Your task to perform on an android device: Go to network settings Image 0: 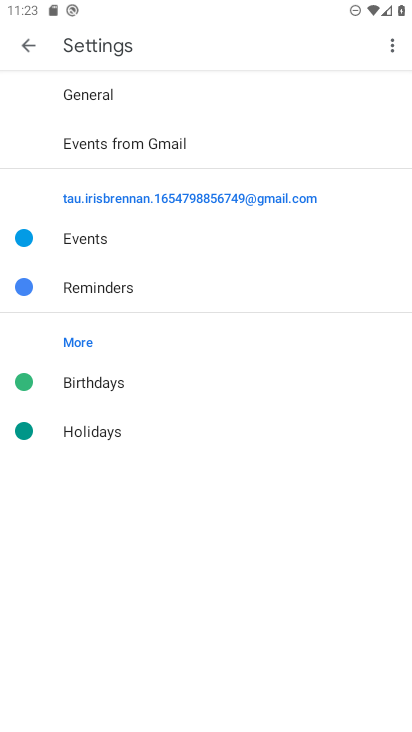
Step 0: press home button
Your task to perform on an android device: Go to network settings Image 1: 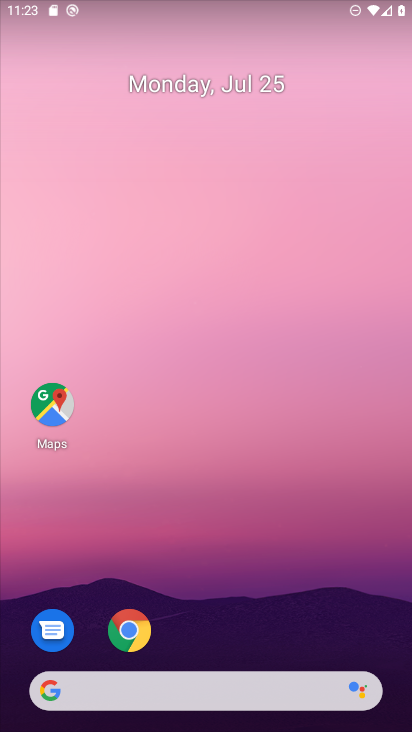
Step 1: drag from (205, 650) to (193, 11)
Your task to perform on an android device: Go to network settings Image 2: 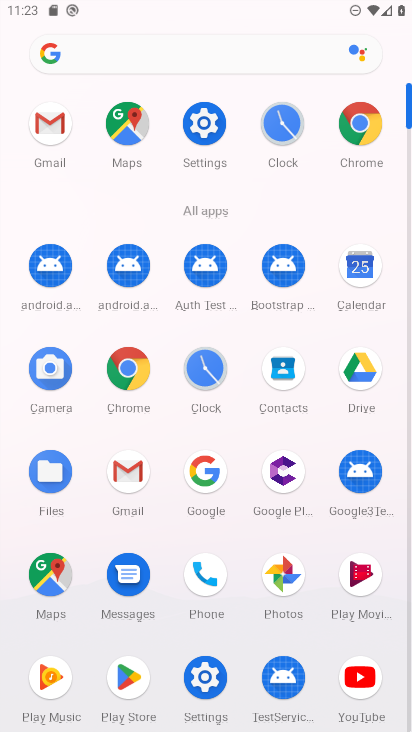
Step 2: click (196, 127)
Your task to perform on an android device: Go to network settings Image 3: 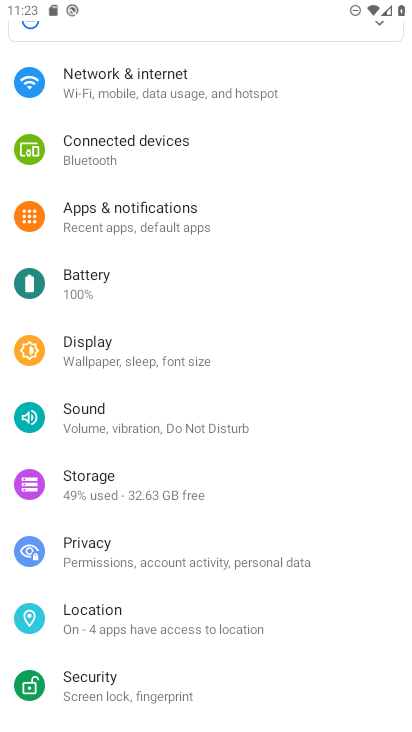
Step 3: click (111, 87)
Your task to perform on an android device: Go to network settings Image 4: 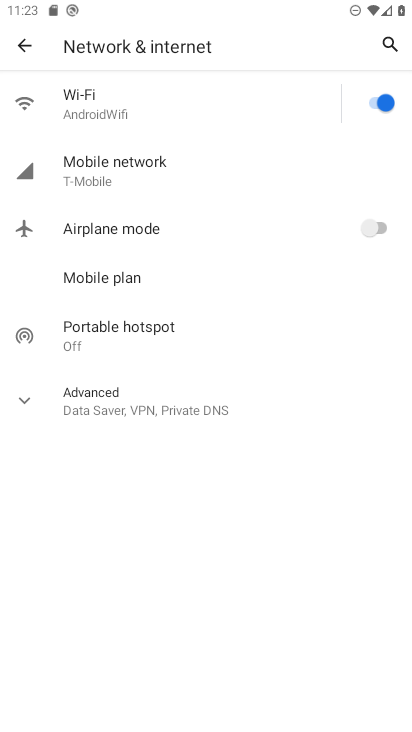
Step 4: click (91, 173)
Your task to perform on an android device: Go to network settings Image 5: 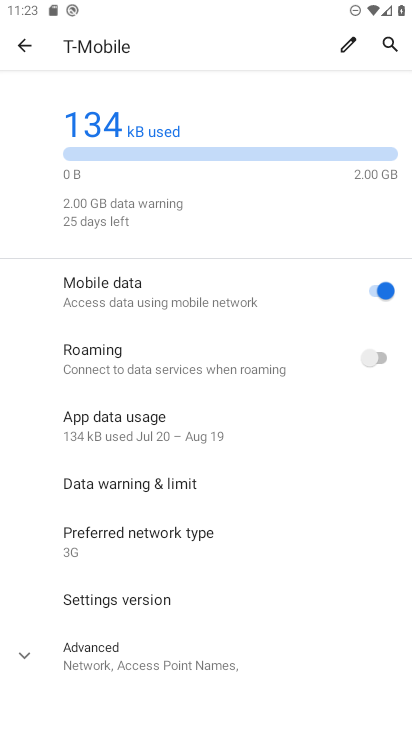
Step 5: drag from (220, 578) to (218, 283)
Your task to perform on an android device: Go to network settings Image 6: 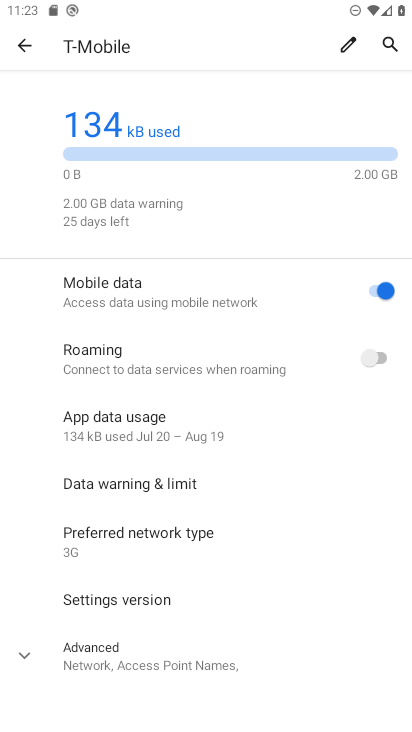
Step 6: click (20, 659)
Your task to perform on an android device: Go to network settings Image 7: 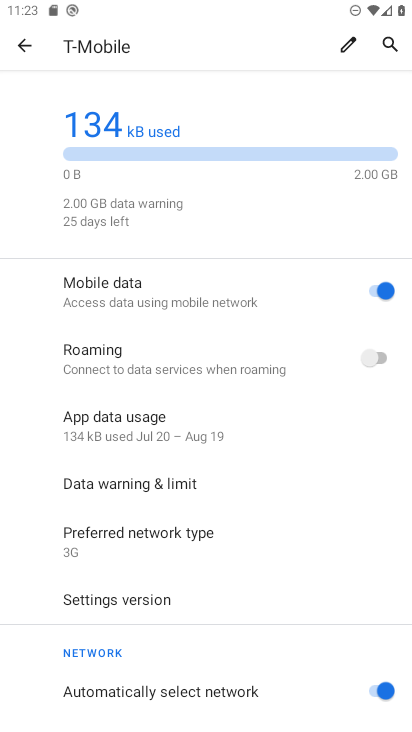
Step 7: task complete